Your task to perform on an android device: Open the Play Movies app and select the watchlist tab. Image 0: 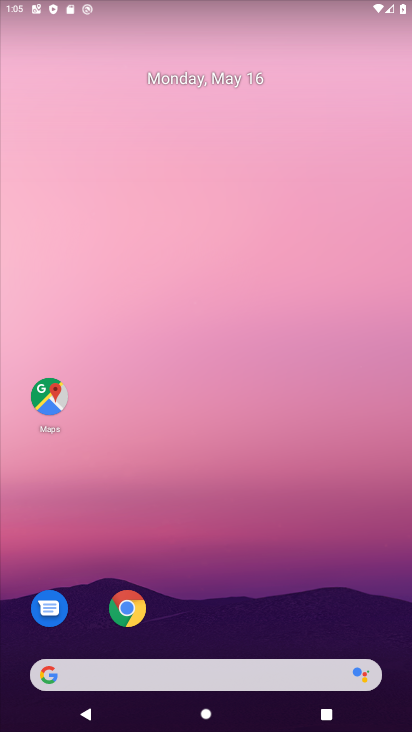
Step 0: drag from (212, 450) to (212, 327)
Your task to perform on an android device: Open the Play Movies app and select the watchlist tab. Image 1: 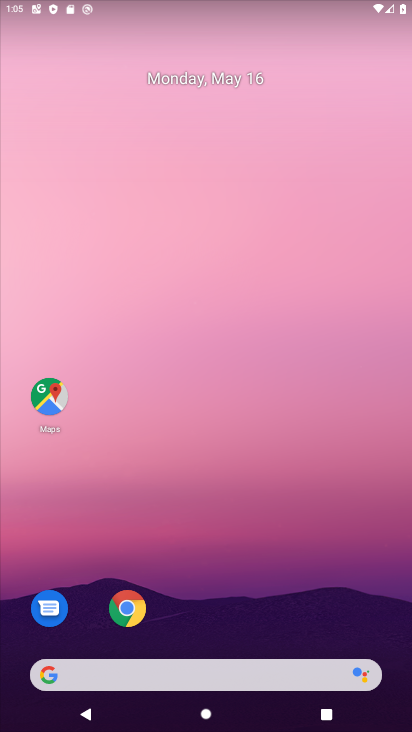
Step 1: drag from (181, 638) to (275, 180)
Your task to perform on an android device: Open the Play Movies app and select the watchlist tab. Image 2: 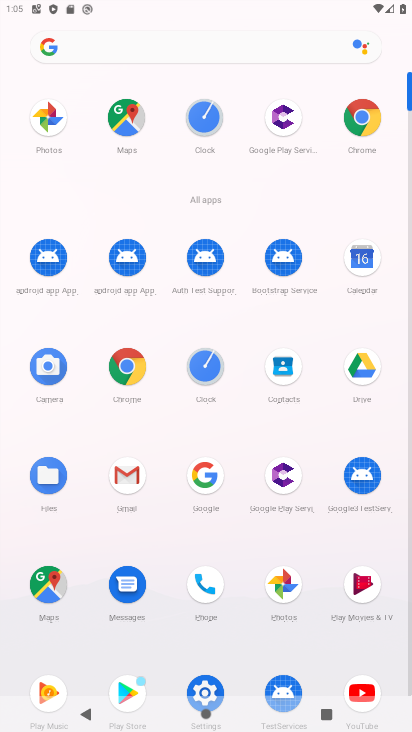
Step 2: drag from (254, 642) to (307, 421)
Your task to perform on an android device: Open the Play Movies app and select the watchlist tab. Image 3: 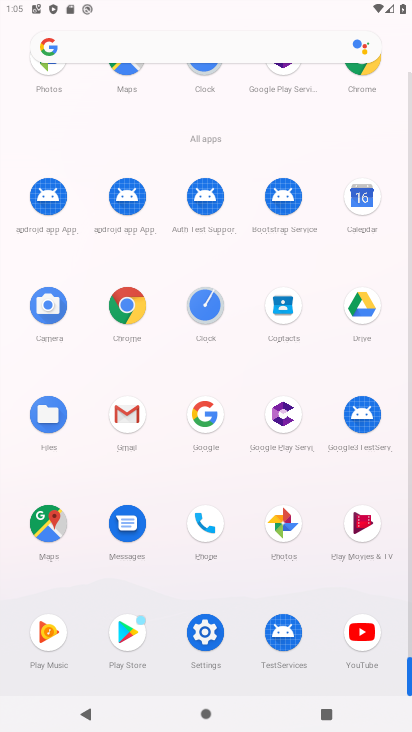
Step 3: click (364, 491)
Your task to perform on an android device: Open the Play Movies app and select the watchlist tab. Image 4: 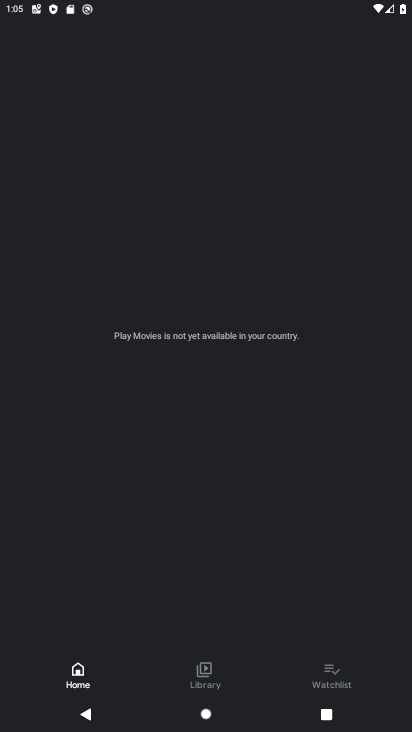
Step 4: click (349, 678)
Your task to perform on an android device: Open the Play Movies app and select the watchlist tab. Image 5: 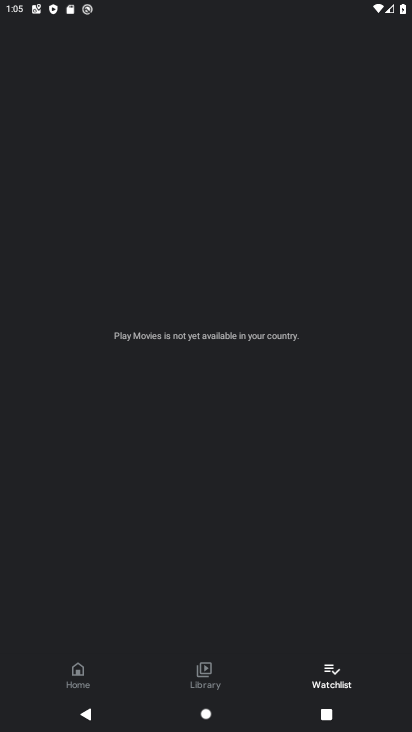
Step 5: task complete